Your task to perform on an android device: change keyboard looks Image 0: 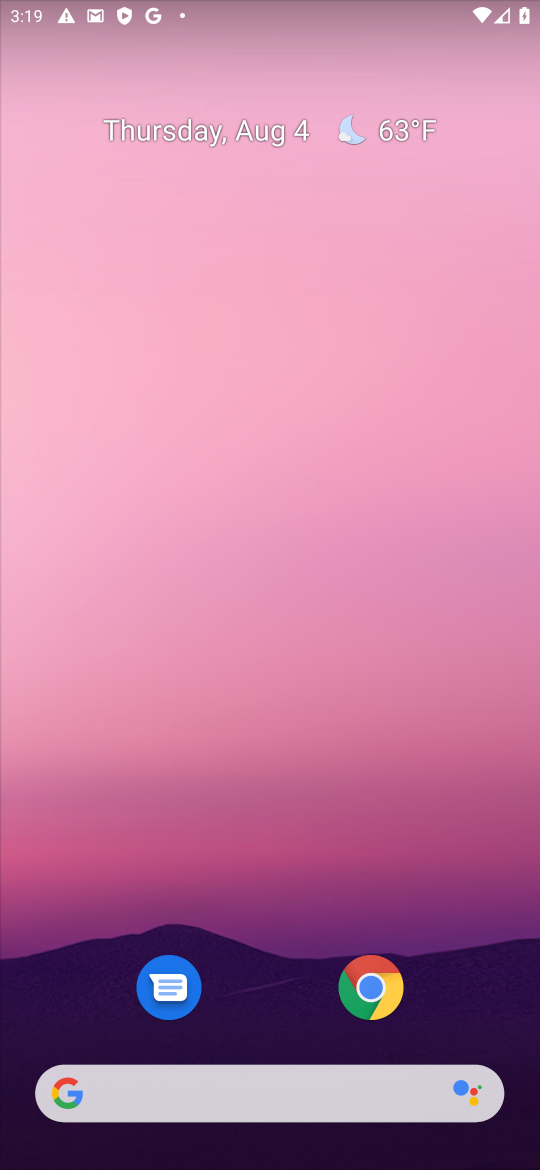
Step 0: click (264, 1013)
Your task to perform on an android device: change keyboard looks Image 1: 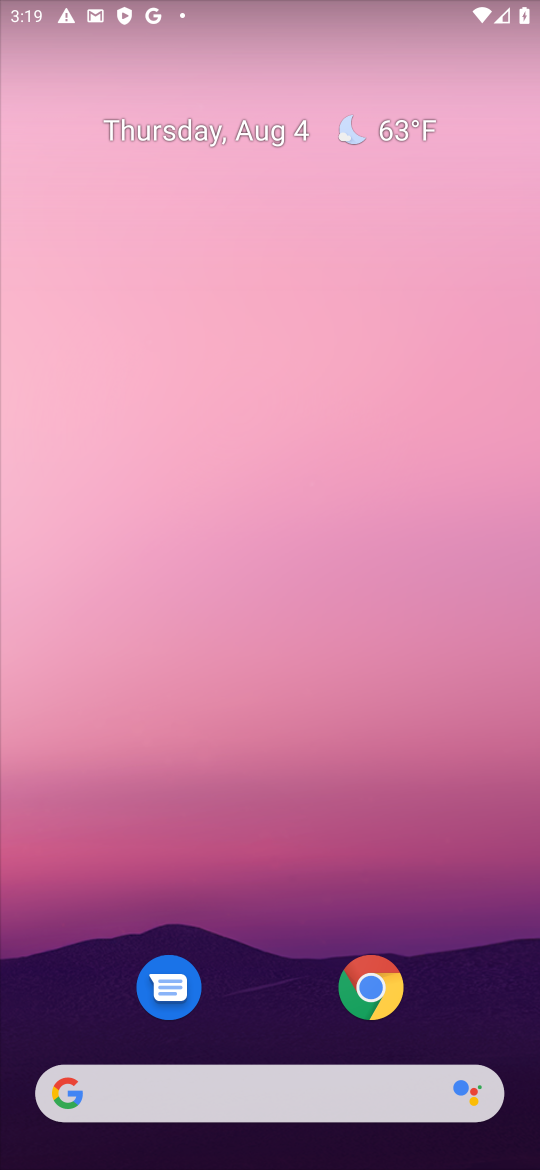
Step 1: drag from (302, 1017) to (317, 254)
Your task to perform on an android device: change keyboard looks Image 2: 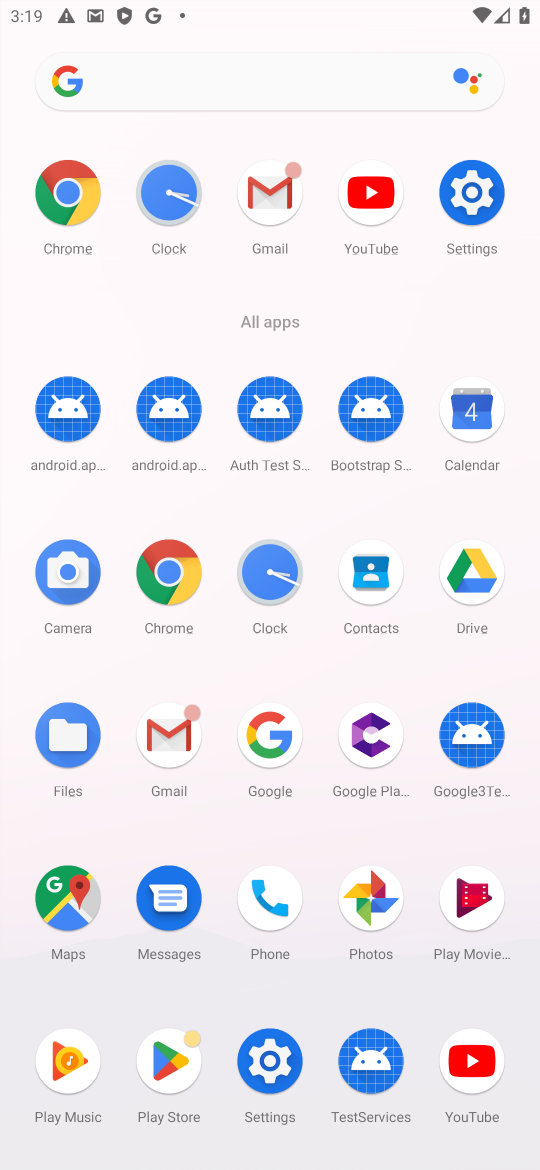
Step 2: click (468, 199)
Your task to perform on an android device: change keyboard looks Image 3: 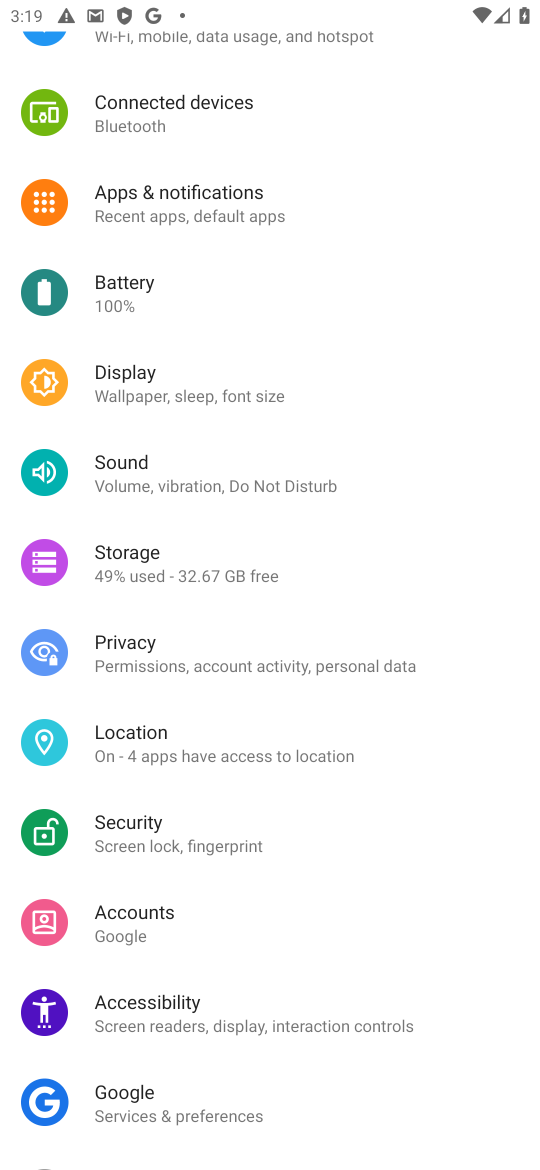
Step 3: drag from (153, 961) to (191, 644)
Your task to perform on an android device: change keyboard looks Image 4: 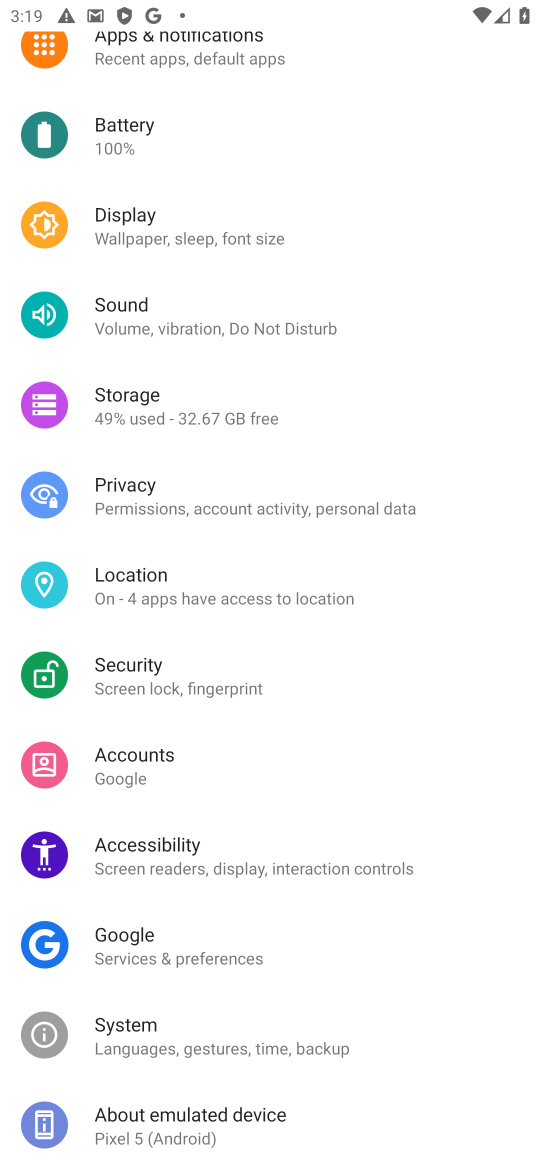
Step 4: click (157, 1037)
Your task to perform on an android device: change keyboard looks Image 5: 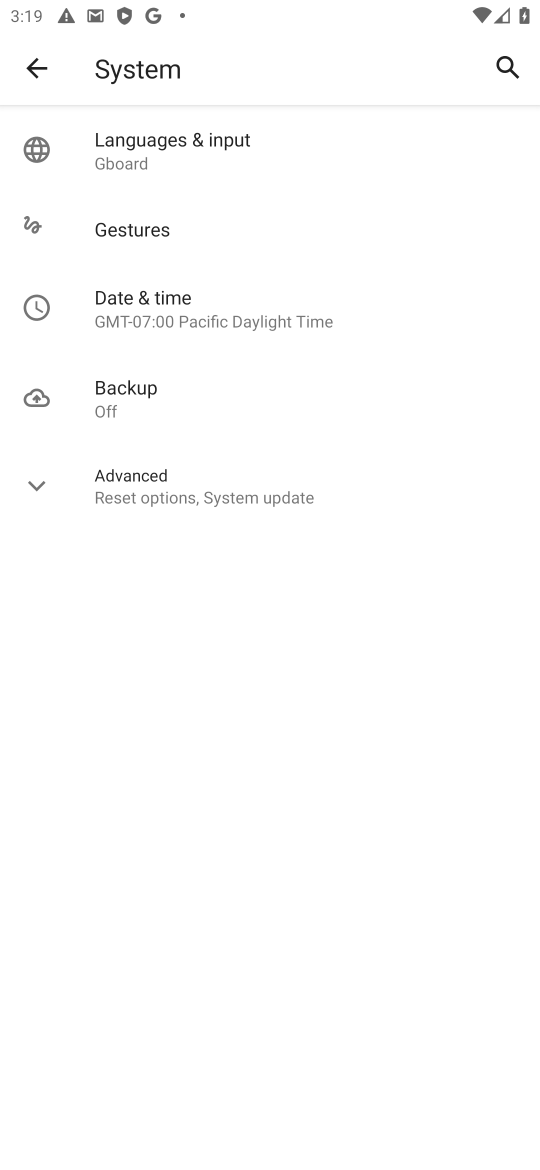
Step 5: click (105, 153)
Your task to perform on an android device: change keyboard looks Image 6: 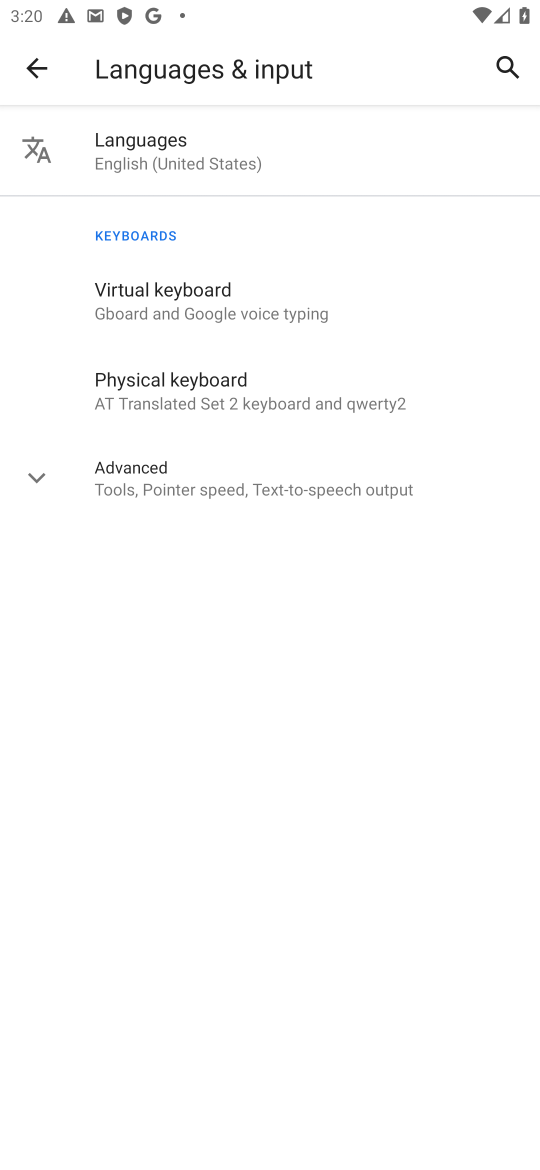
Step 6: click (151, 297)
Your task to perform on an android device: change keyboard looks Image 7: 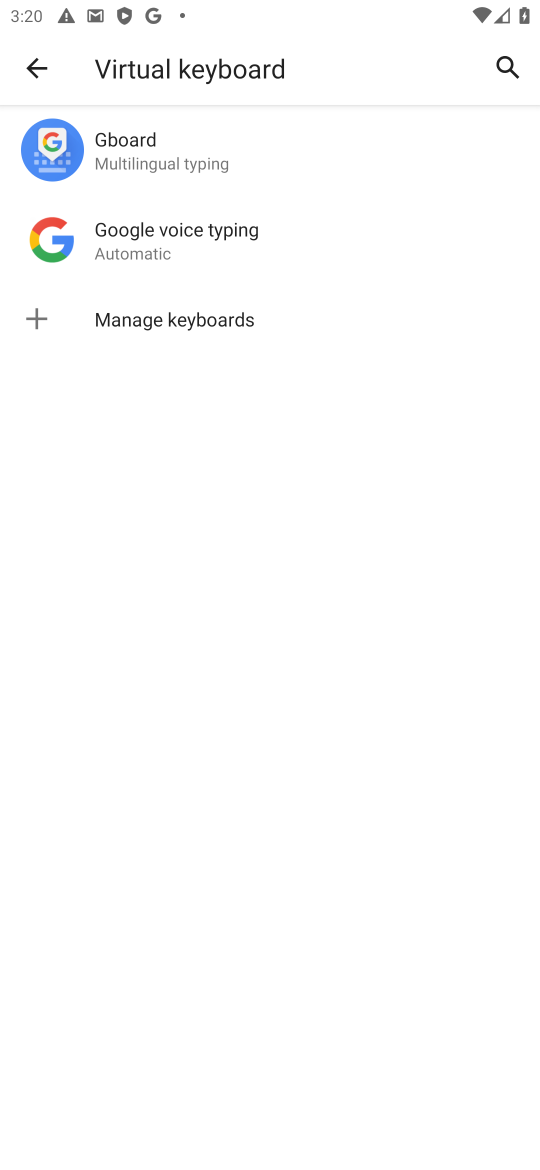
Step 7: click (132, 150)
Your task to perform on an android device: change keyboard looks Image 8: 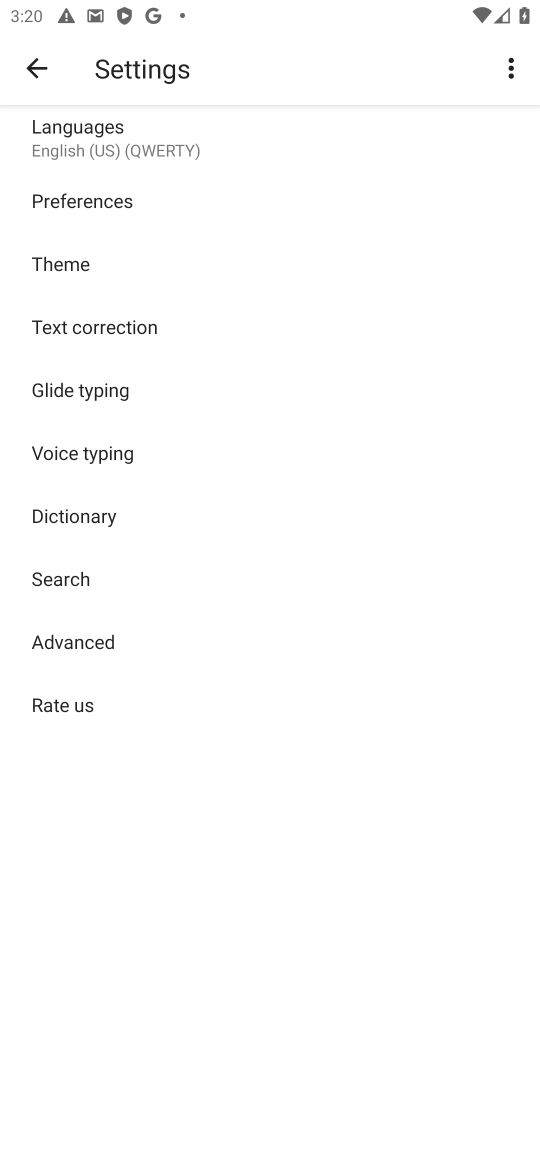
Step 8: click (86, 275)
Your task to perform on an android device: change keyboard looks Image 9: 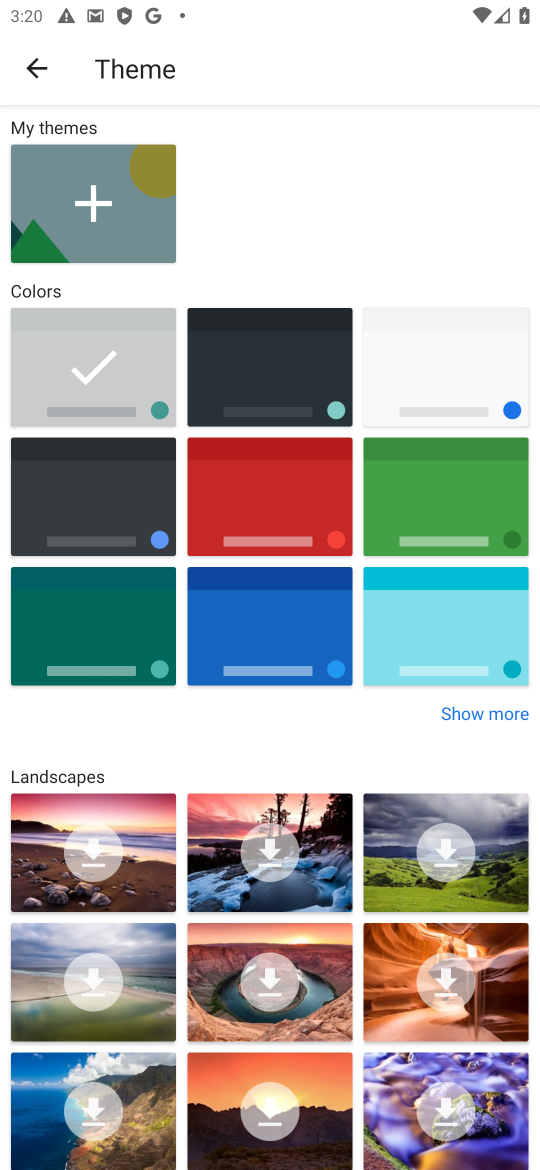
Step 9: click (279, 399)
Your task to perform on an android device: change keyboard looks Image 10: 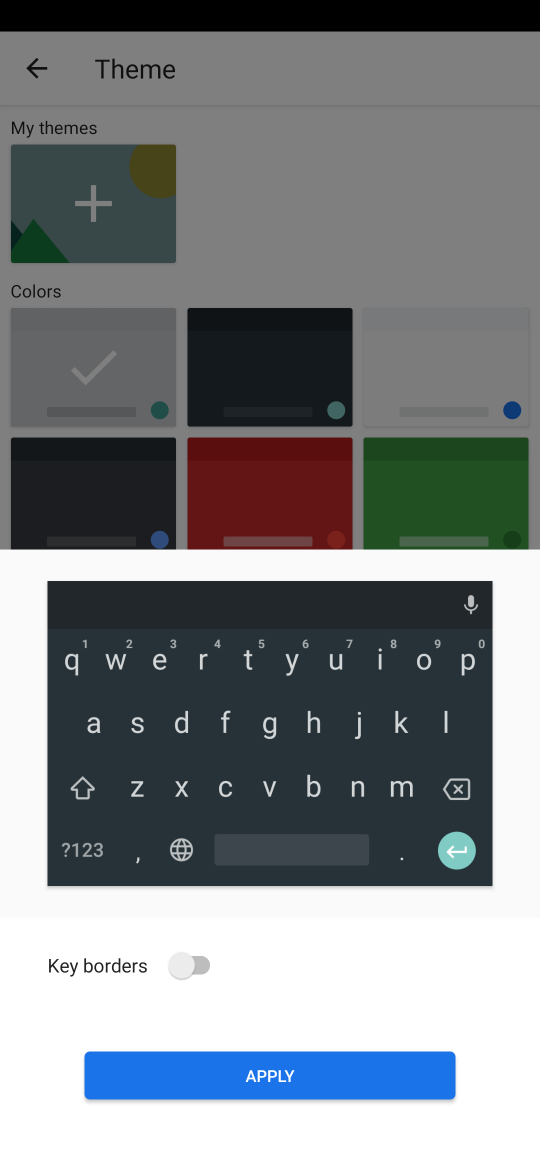
Step 10: click (331, 412)
Your task to perform on an android device: change keyboard looks Image 11: 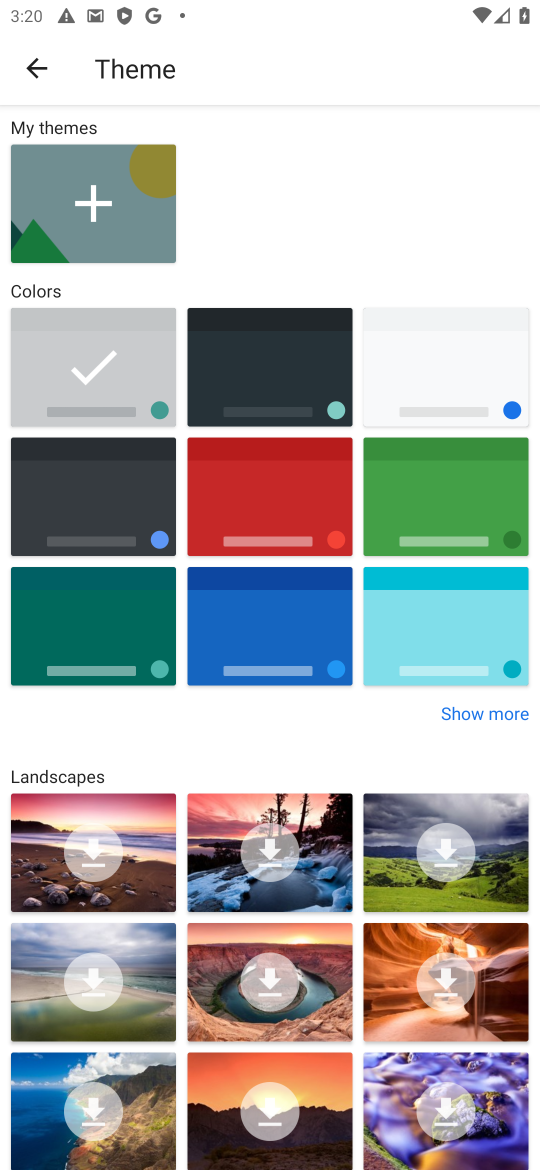
Step 11: click (331, 412)
Your task to perform on an android device: change keyboard looks Image 12: 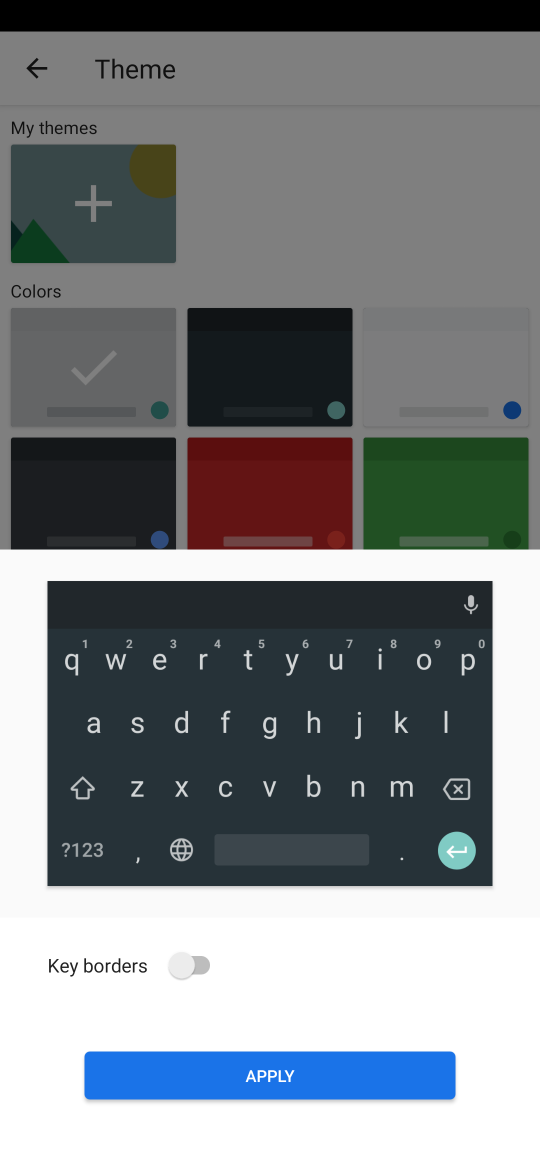
Step 12: click (518, 409)
Your task to perform on an android device: change keyboard looks Image 13: 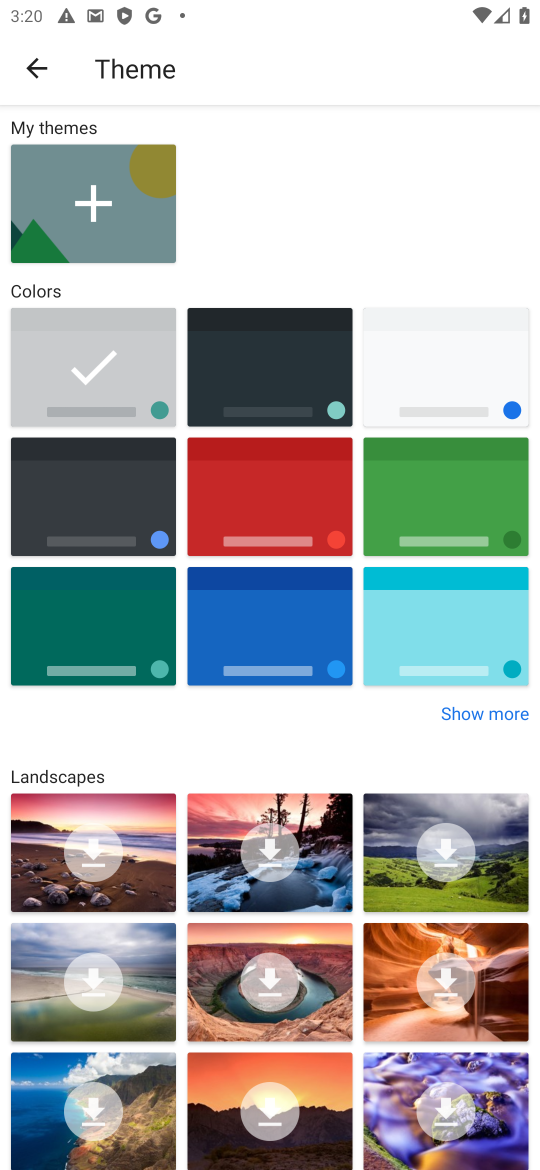
Step 13: click (318, 373)
Your task to perform on an android device: change keyboard looks Image 14: 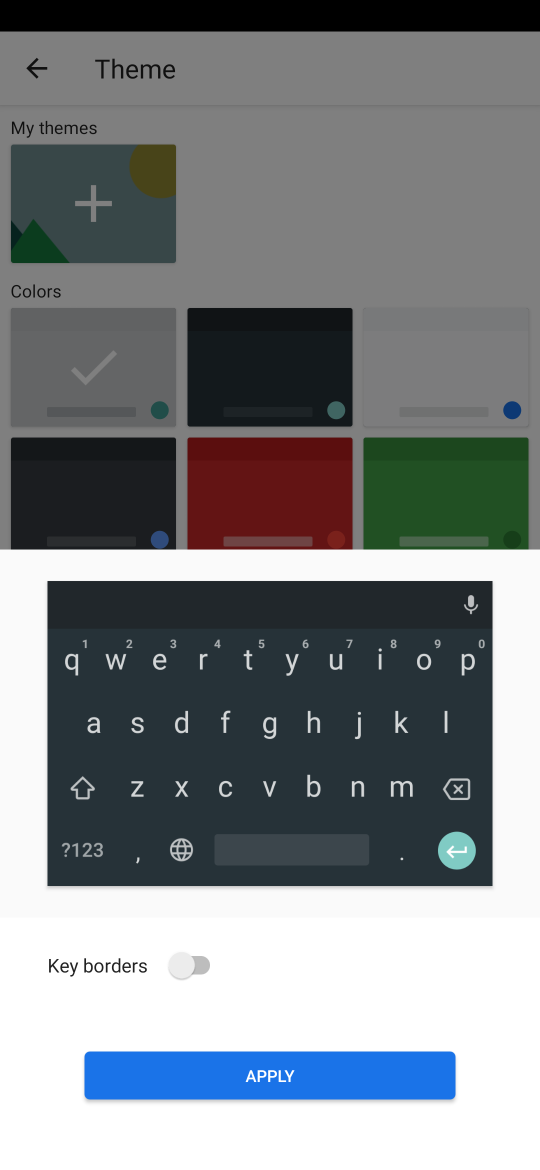
Step 14: click (245, 1078)
Your task to perform on an android device: change keyboard looks Image 15: 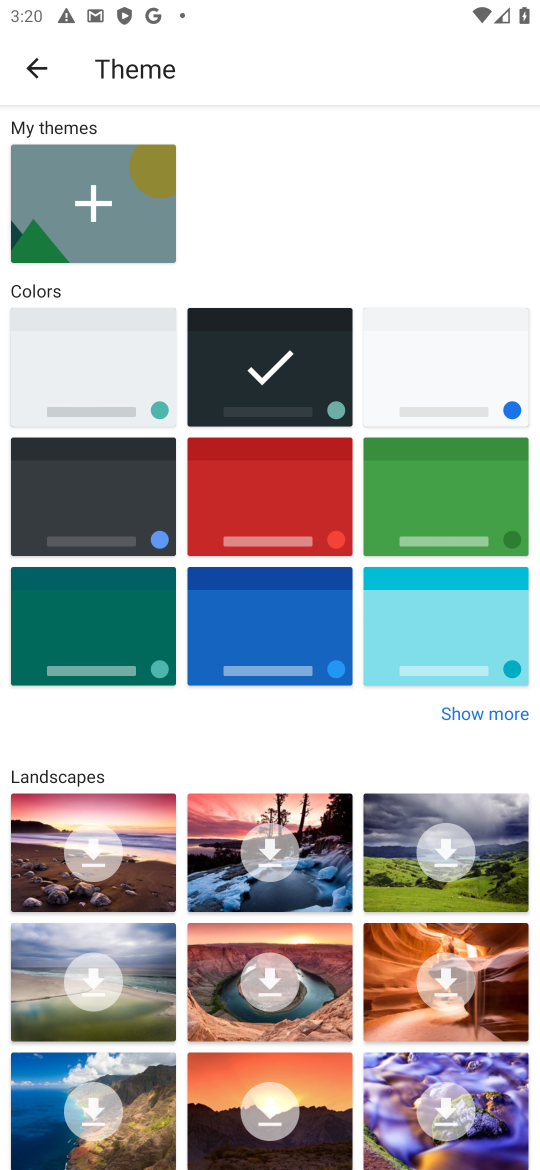
Step 15: task complete